Your task to perform on an android device: Go to wifi settings Image 0: 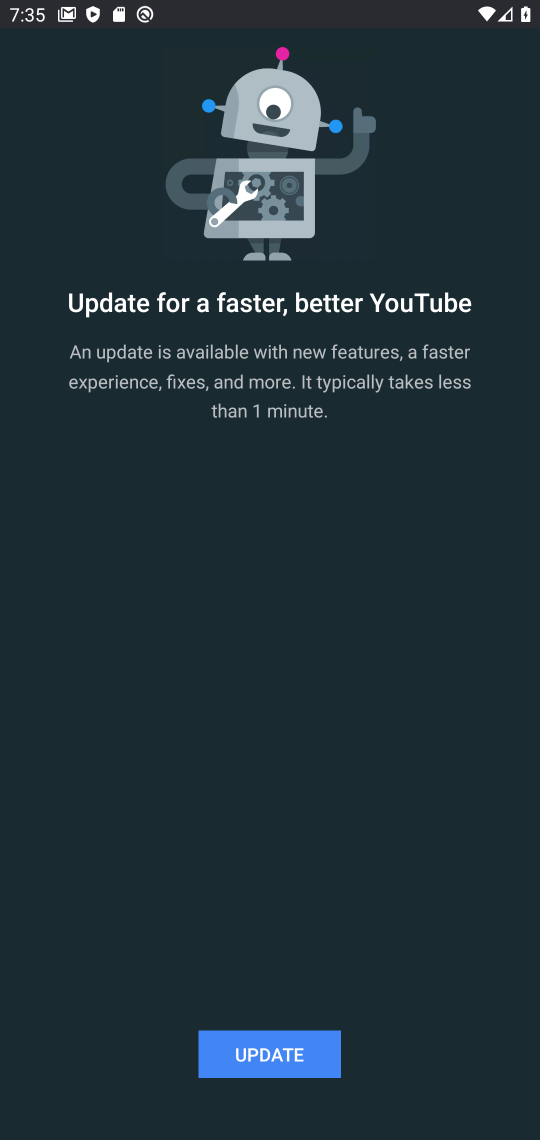
Step 0: press home button
Your task to perform on an android device: Go to wifi settings Image 1: 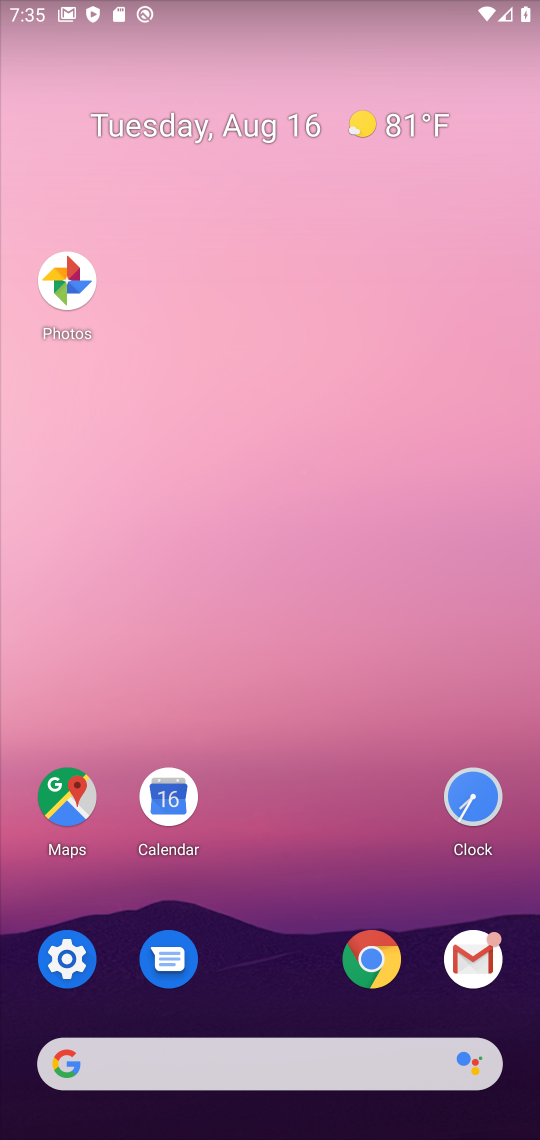
Step 1: drag from (282, 999) to (239, 230)
Your task to perform on an android device: Go to wifi settings Image 2: 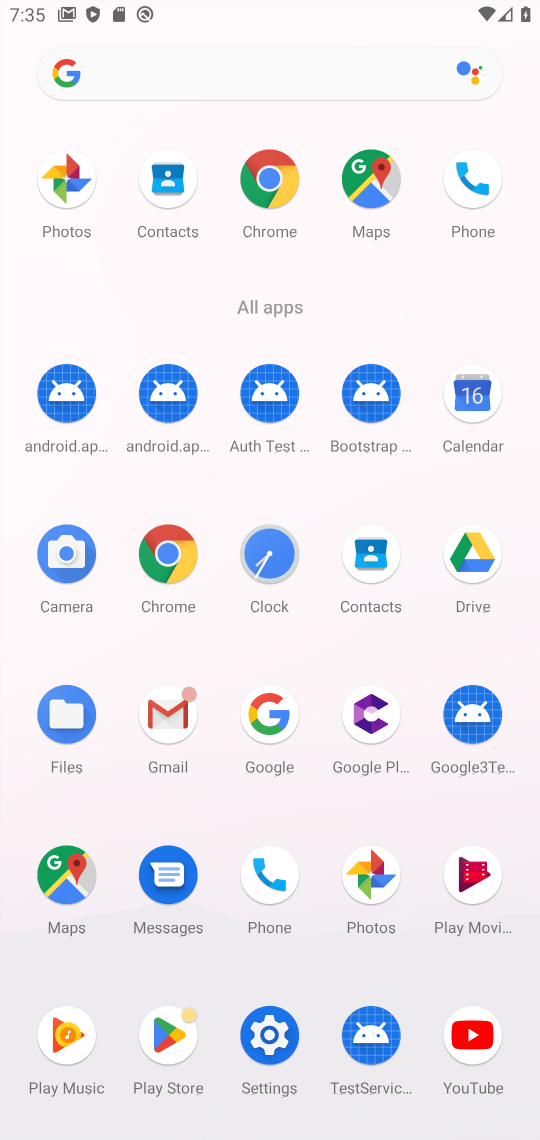
Step 2: click (268, 1042)
Your task to perform on an android device: Go to wifi settings Image 3: 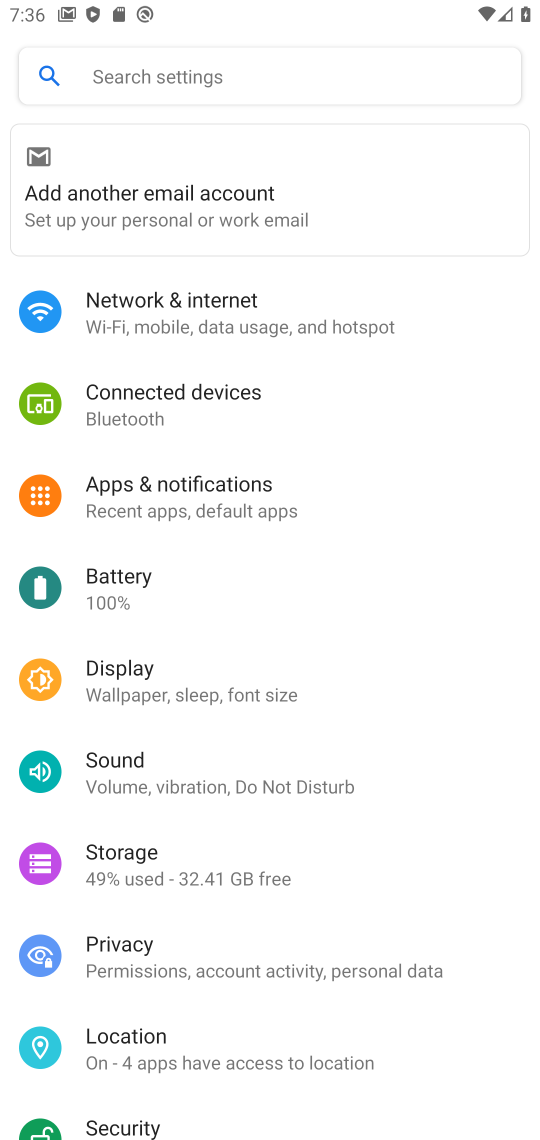
Step 3: click (143, 295)
Your task to perform on an android device: Go to wifi settings Image 4: 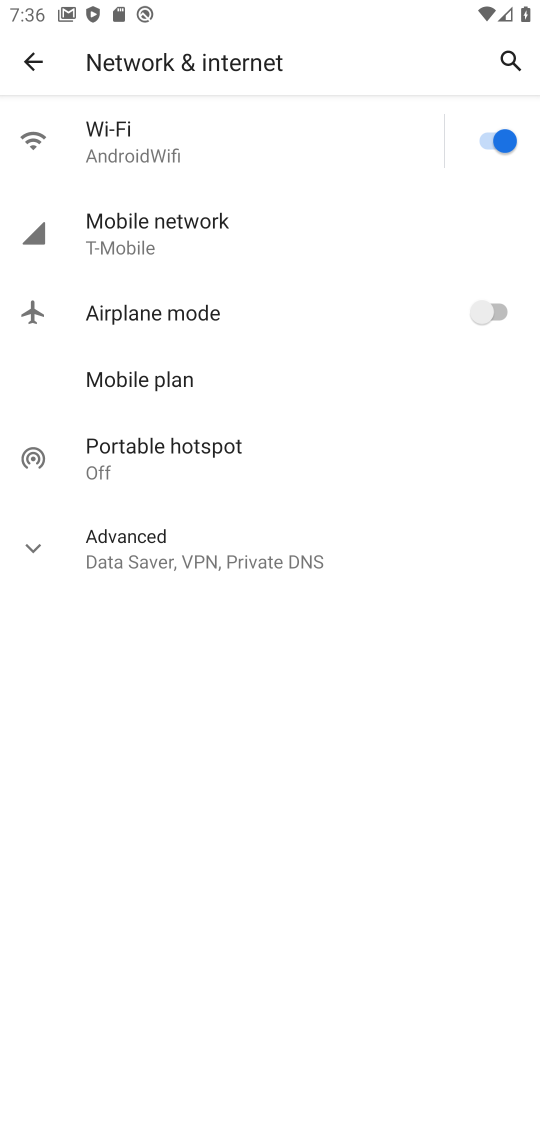
Step 4: click (113, 123)
Your task to perform on an android device: Go to wifi settings Image 5: 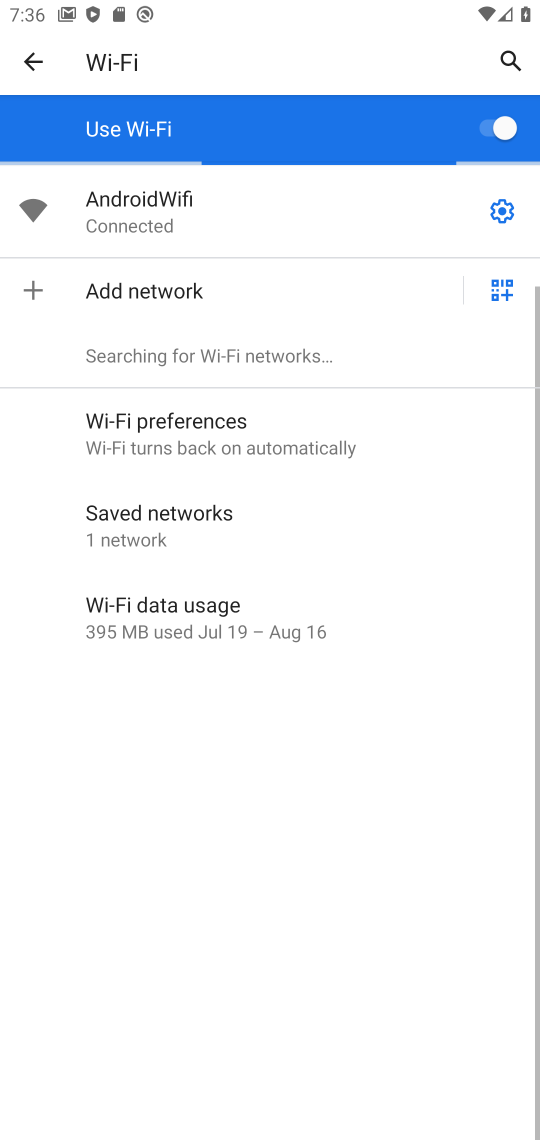
Step 5: task complete